Your task to perform on an android device: open app "Nova Launcher" Image 0: 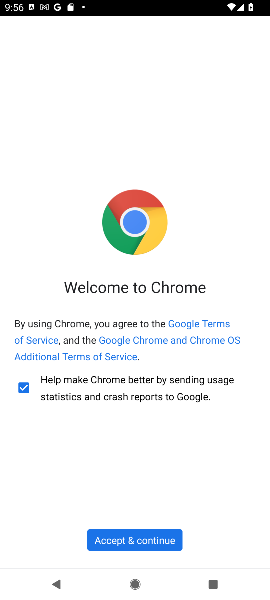
Step 0: press home button
Your task to perform on an android device: open app "Nova Launcher" Image 1: 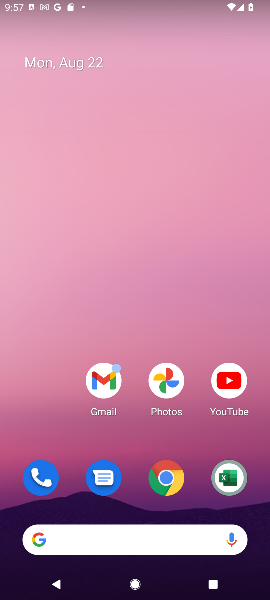
Step 1: drag from (142, 496) to (142, 260)
Your task to perform on an android device: open app "Nova Launcher" Image 2: 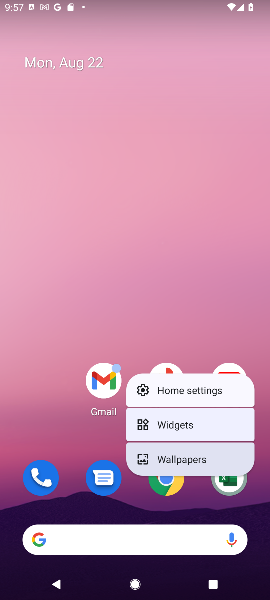
Step 2: click (142, 260)
Your task to perform on an android device: open app "Nova Launcher" Image 3: 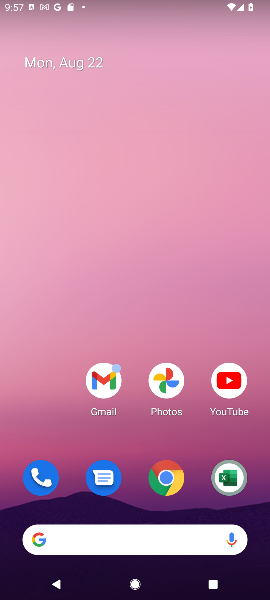
Step 3: drag from (142, 515) to (146, 110)
Your task to perform on an android device: open app "Nova Launcher" Image 4: 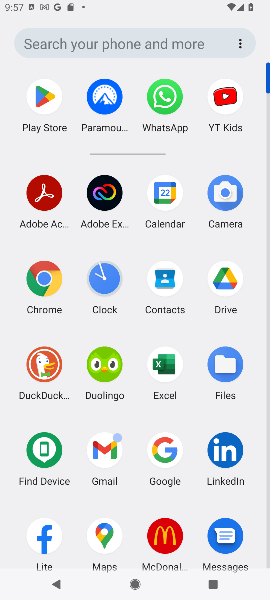
Step 4: click (268, 567)
Your task to perform on an android device: open app "Nova Launcher" Image 5: 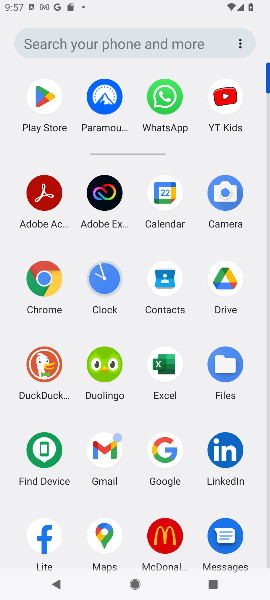
Step 5: click (268, 567)
Your task to perform on an android device: open app "Nova Launcher" Image 6: 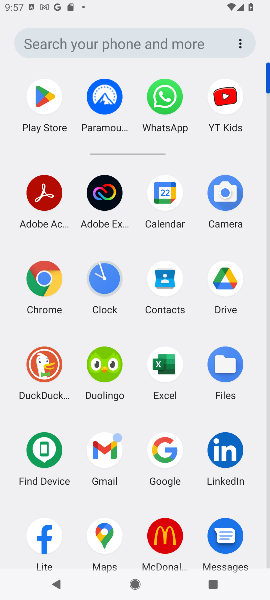
Step 6: click (268, 567)
Your task to perform on an android device: open app "Nova Launcher" Image 7: 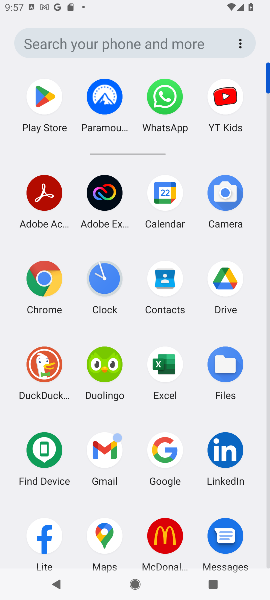
Step 7: drag from (265, 75) to (269, 266)
Your task to perform on an android device: open app "Nova Launcher" Image 8: 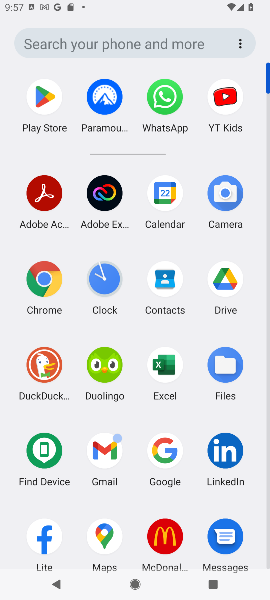
Step 8: drag from (144, 459) to (157, 103)
Your task to perform on an android device: open app "Nova Launcher" Image 9: 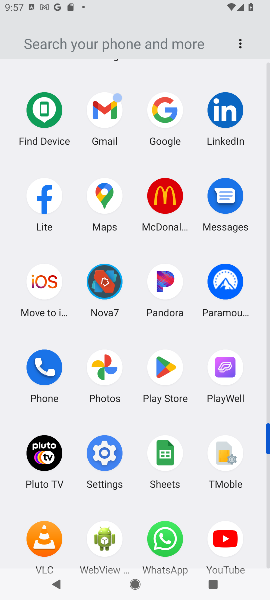
Step 9: drag from (134, 506) to (142, 129)
Your task to perform on an android device: open app "Nova Launcher" Image 10: 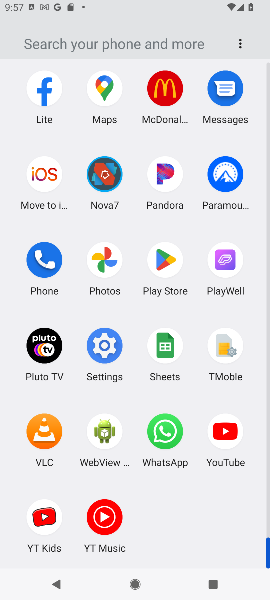
Step 10: click (101, 164)
Your task to perform on an android device: open app "Nova Launcher" Image 11: 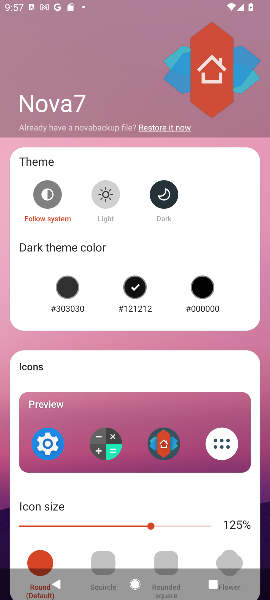
Step 11: task complete